Your task to perform on an android device: turn off airplane mode Image 0: 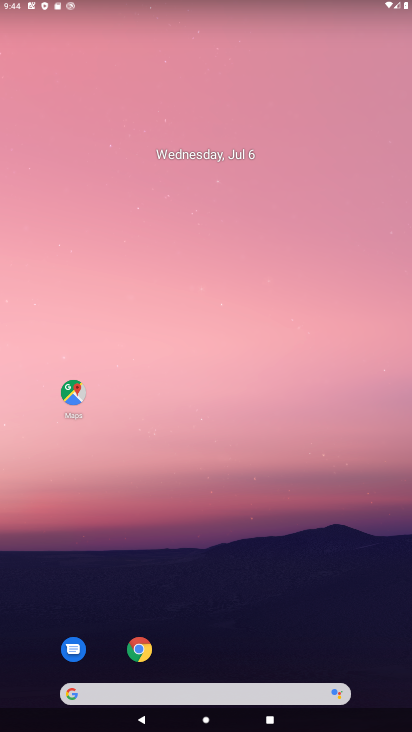
Step 0: drag from (261, 640) to (250, 148)
Your task to perform on an android device: turn off airplane mode Image 1: 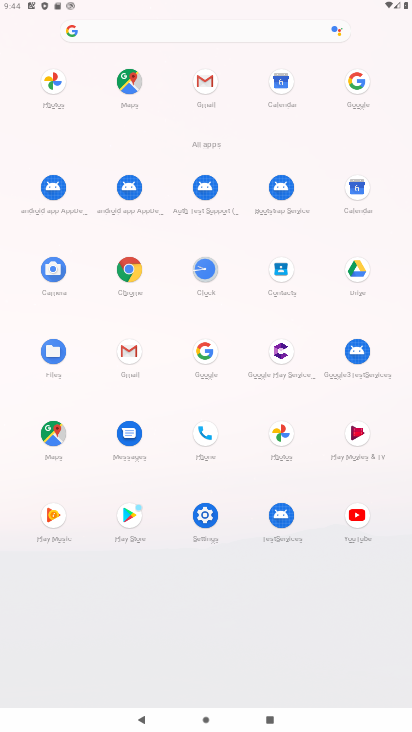
Step 1: click (202, 514)
Your task to perform on an android device: turn off airplane mode Image 2: 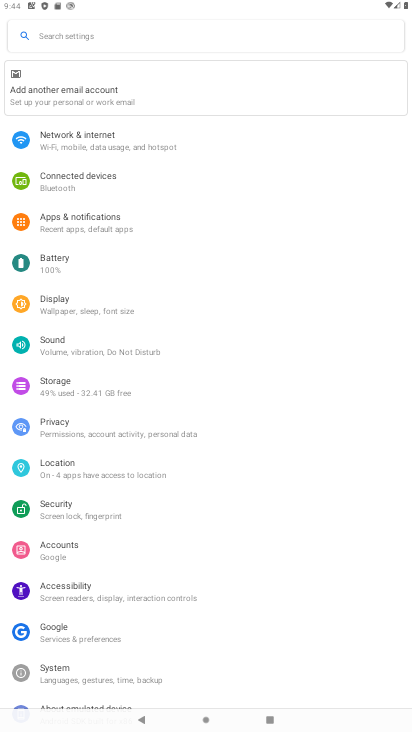
Step 2: click (70, 143)
Your task to perform on an android device: turn off airplane mode Image 3: 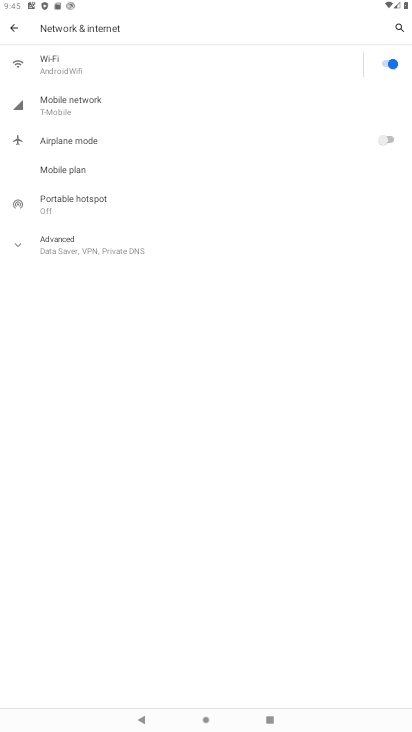
Step 3: task complete